Your task to perform on an android device: read, delete, or share a saved page in the chrome app Image 0: 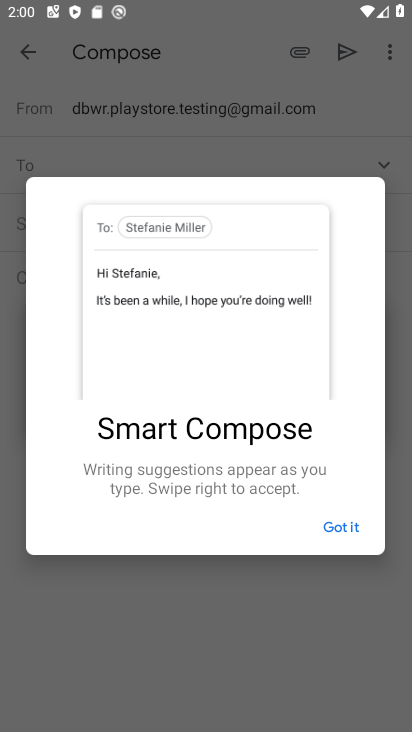
Step 0: press home button
Your task to perform on an android device: read, delete, or share a saved page in the chrome app Image 1: 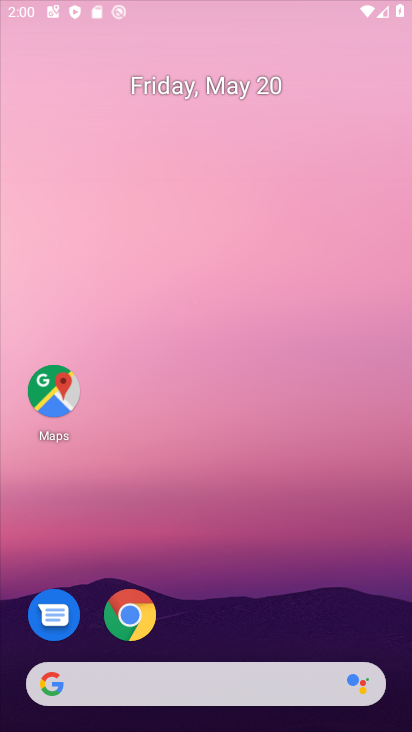
Step 1: drag from (269, 542) to (272, 312)
Your task to perform on an android device: read, delete, or share a saved page in the chrome app Image 2: 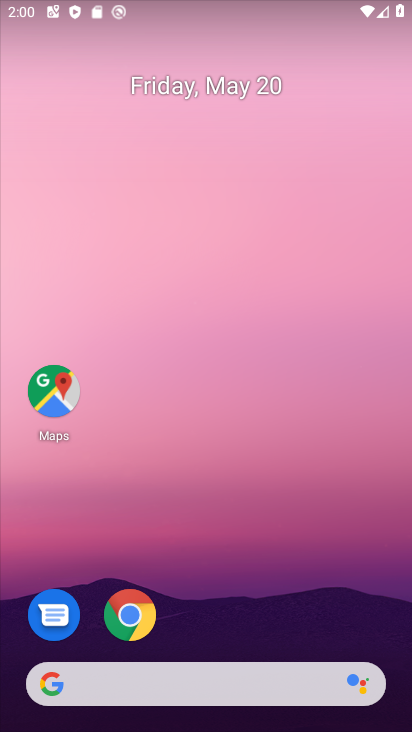
Step 2: drag from (257, 576) to (291, 289)
Your task to perform on an android device: read, delete, or share a saved page in the chrome app Image 3: 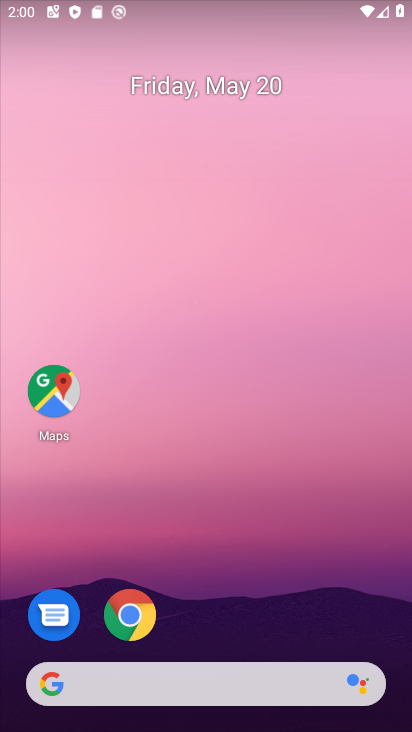
Step 3: drag from (250, 610) to (250, 293)
Your task to perform on an android device: read, delete, or share a saved page in the chrome app Image 4: 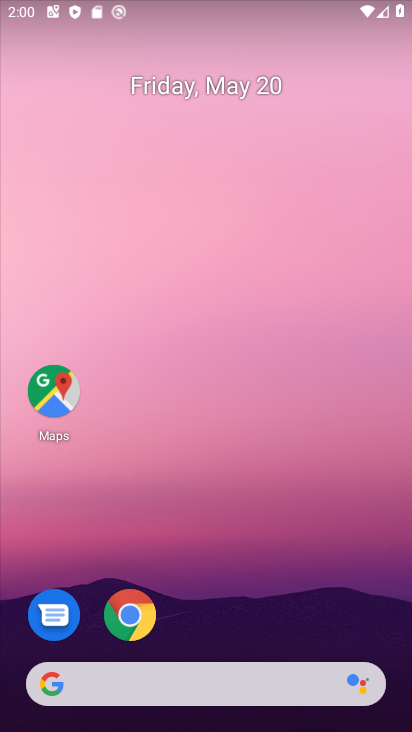
Step 4: drag from (242, 621) to (262, 236)
Your task to perform on an android device: read, delete, or share a saved page in the chrome app Image 5: 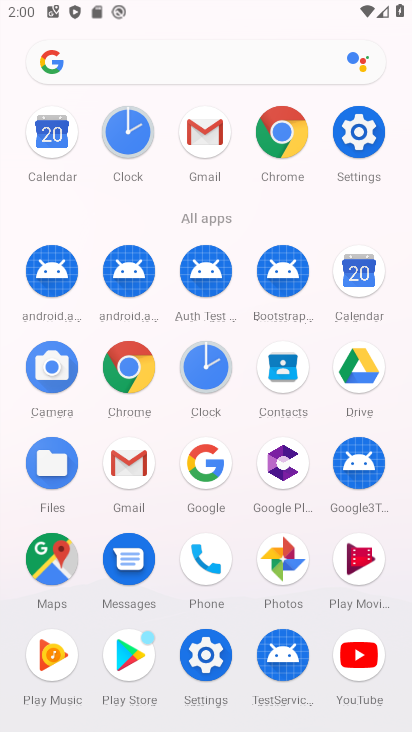
Step 5: click (288, 130)
Your task to perform on an android device: read, delete, or share a saved page in the chrome app Image 6: 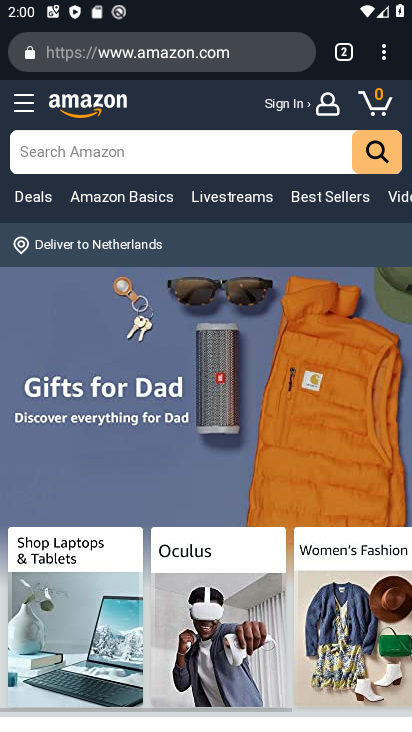
Step 6: click (390, 59)
Your task to perform on an android device: read, delete, or share a saved page in the chrome app Image 7: 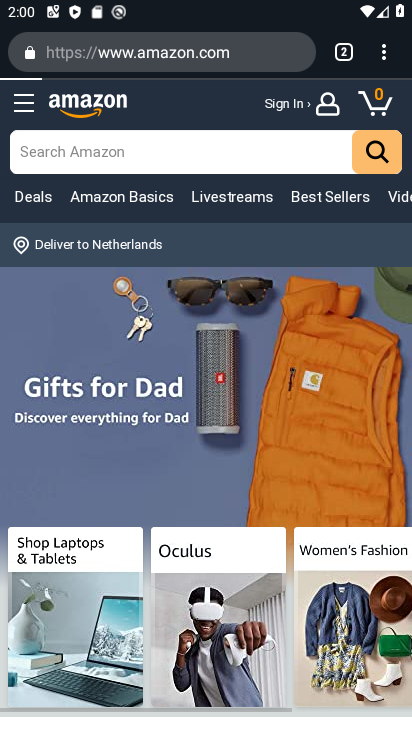
Step 7: click (388, 58)
Your task to perform on an android device: read, delete, or share a saved page in the chrome app Image 8: 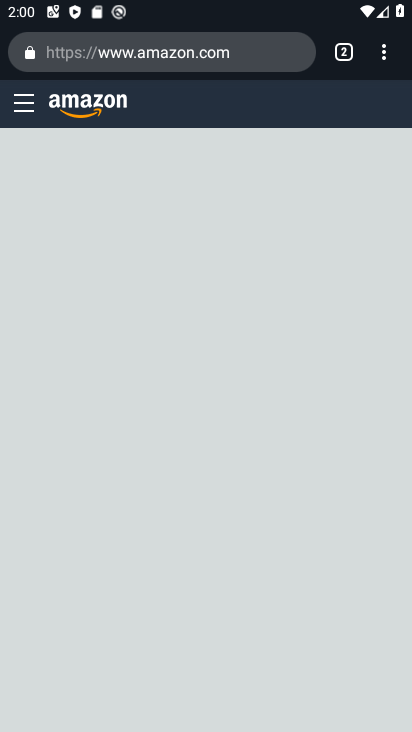
Step 8: click (377, 46)
Your task to perform on an android device: read, delete, or share a saved page in the chrome app Image 9: 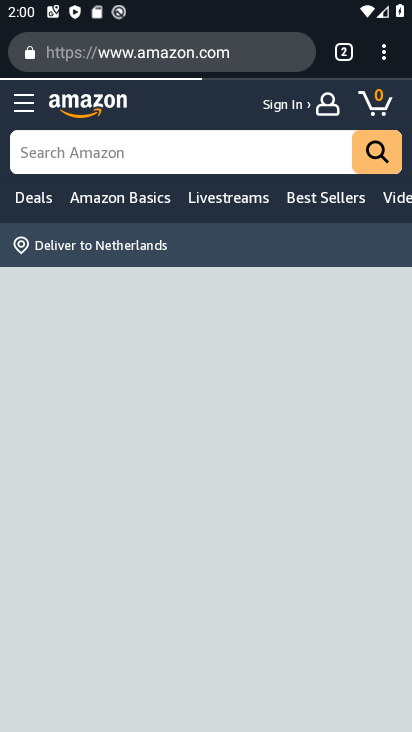
Step 9: click (389, 63)
Your task to perform on an android device: read, delete, or share a saved page in the chrome app Image 10: 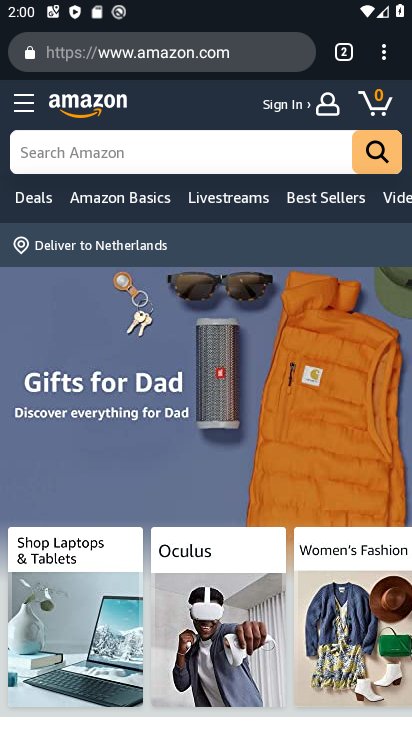
Step 10: click (389, 62)
Your task to perform on an android device: read, delete, or share a saved page in the chrome app Image 11: 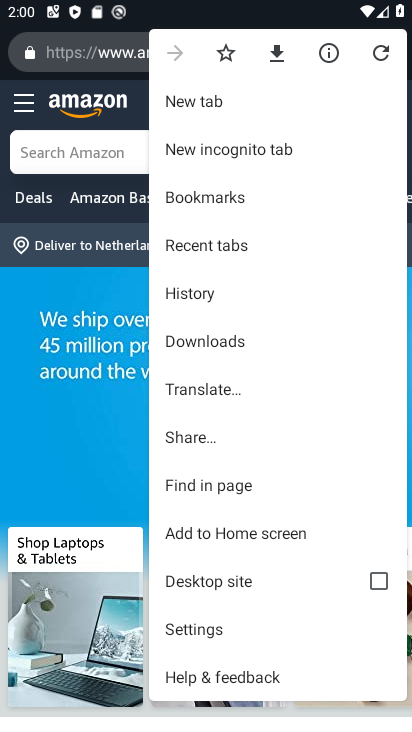
Step 11: drag from (273, 624) to (274, 548)
Your task to perform on an android device: read, delete, or share a saved page in the chrome app Image 12: 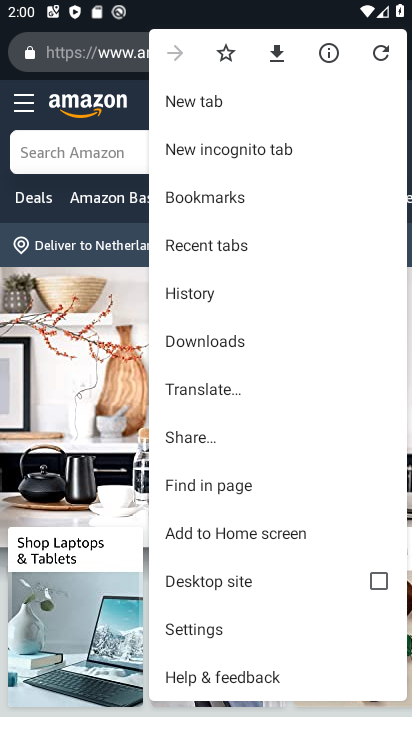
Step 12: click (253, 334)
Your task to perform on an android device: read, delete, or share a saved page in the chrome app Image 13: 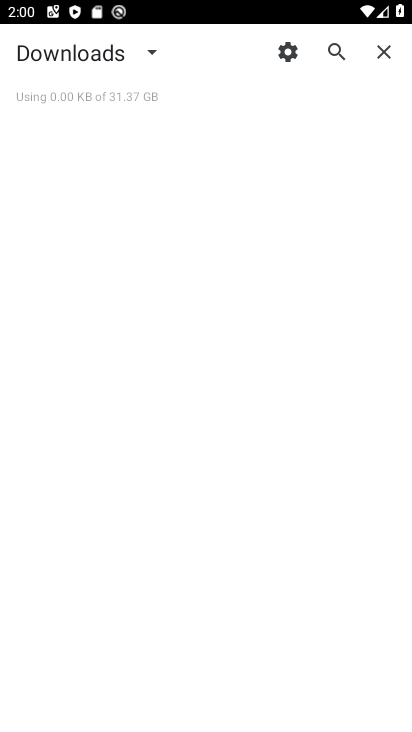
Step 13: click (141, 51)
Your task to perform on an android device: read, delete, or share a saved page in the chrome app Image 14: 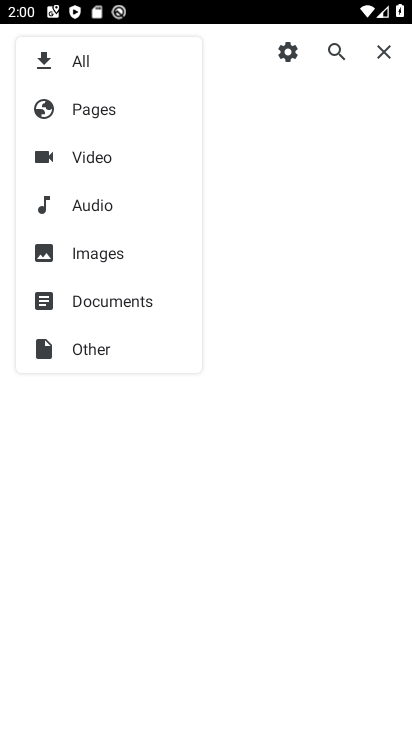
Step 14: click (97, 117)
Your task to perform on an android device: read, delete, or share a saved page in the chrome app Image 15: 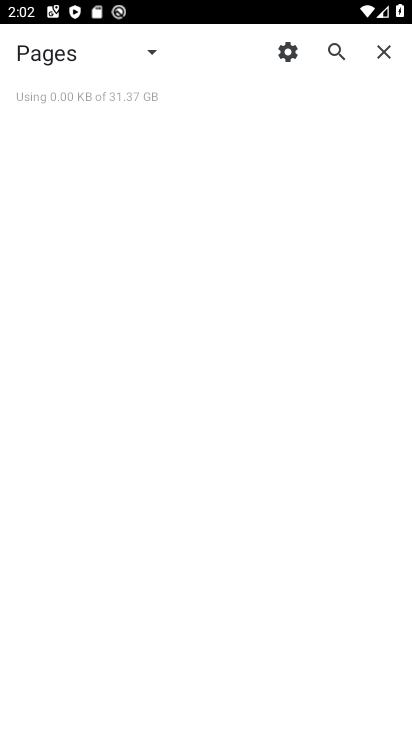
Step 15: task complete